Your task to perform on an android device: Open calendar and show me the first week of next month Image 0: 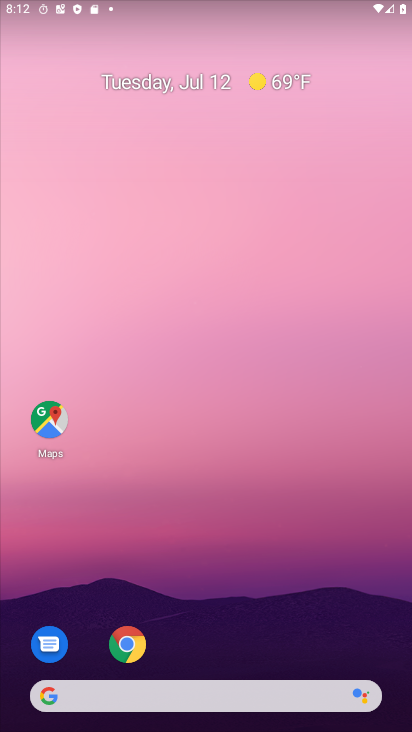
Step 0: press home button
Your task to perform on an android device: Open calendar and show me the first week of next month Image 1: 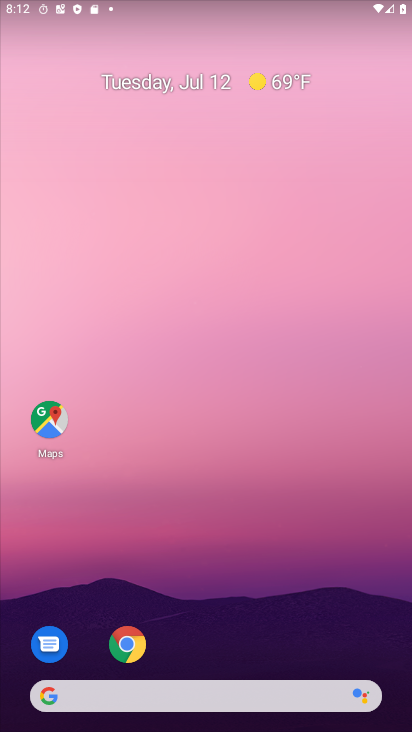
Step 1: drag from (209, 654) to (239, 50)
Your task to perform on an android device: Open calendar and show me the first week of next month Image 2: 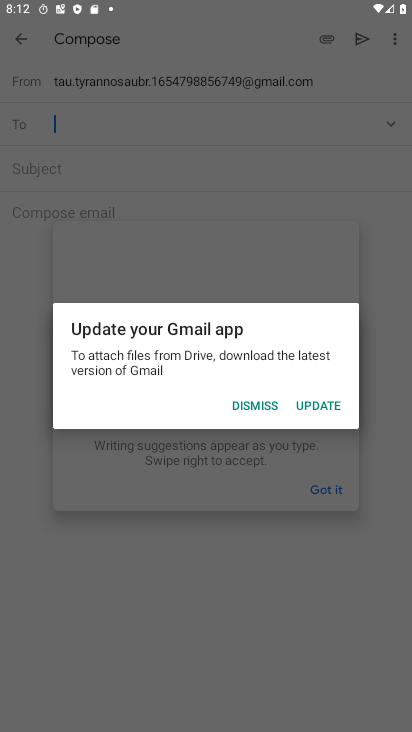
Step 2: press home button
Your task to perform on an android device: Open calendar and show me the first week of next month Image 3: 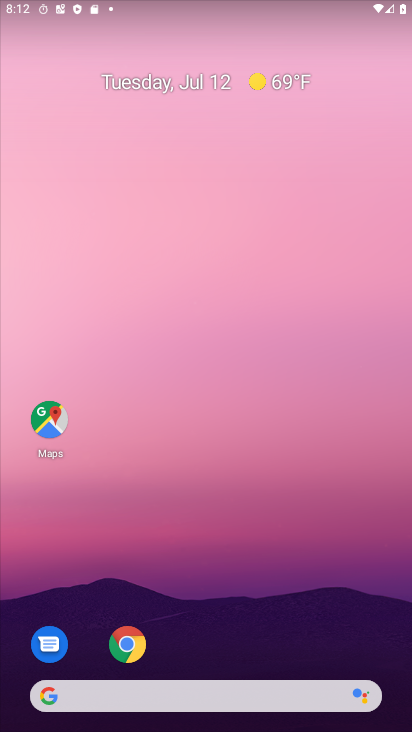
Step 3: drag from (211, 656) to (209, 133)
Your task to perform on an android device: Open calendar and show me the first week of next month Image 4: 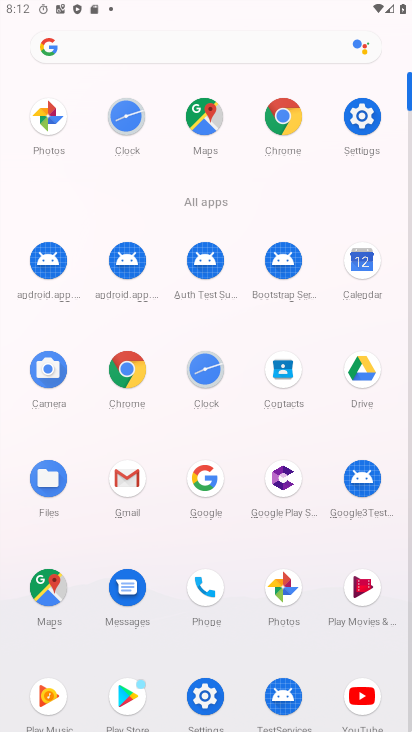
Step 4: click (364, 256)
Your task to perform on an android device: Open calendar and show me the first week of next month Image 5: 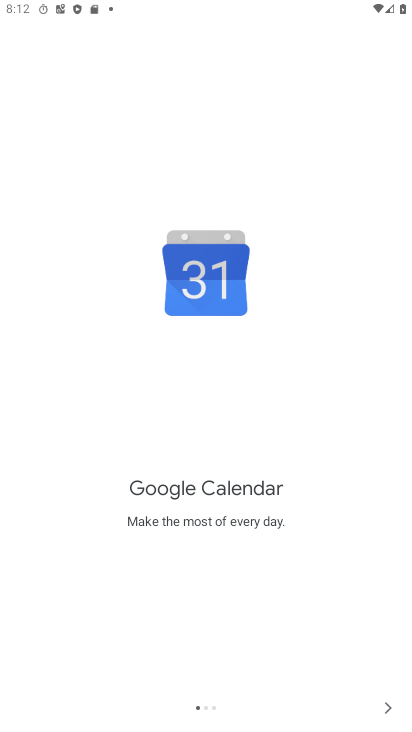
Step 5: click (382, 706)
Your task to perform on an android device: Open calendar and show me the first week of next month Image 6: 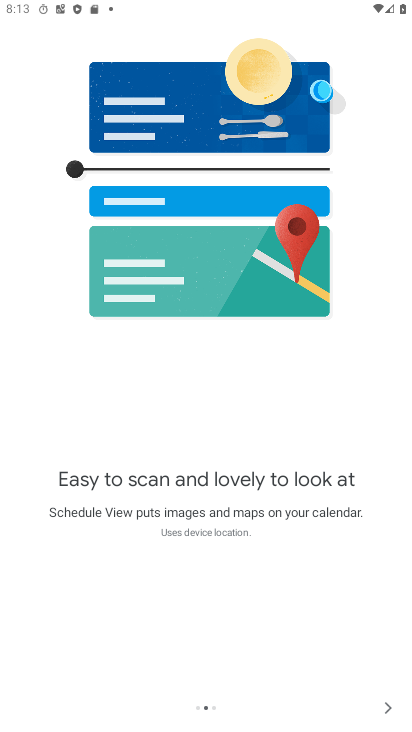
Step 6: click (383, 704)
Your task to perform on an android device: Open calendar and show me the first week of next month Image 7: 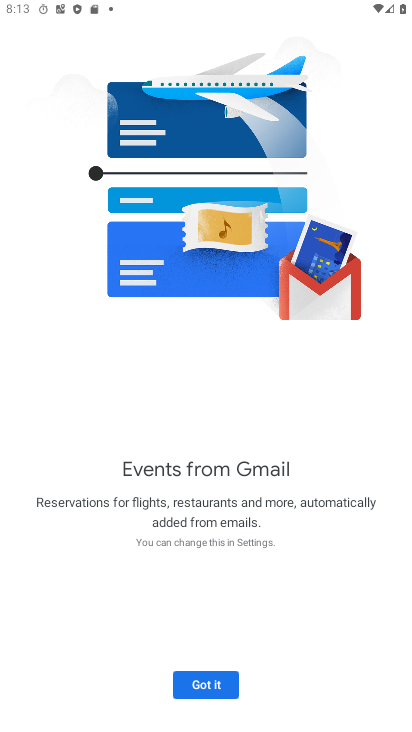
Step 7: click (383, 704)
Your task to perform on an android device: Open calendar and show me the first week of next month Image 8: 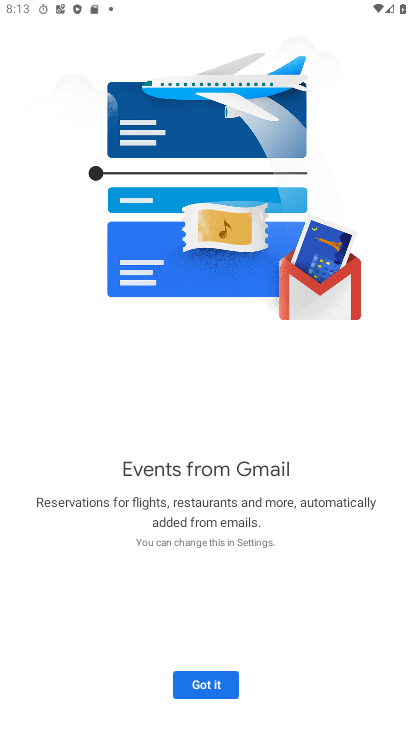
Step 8: click (215, 680)
Your task to perform on an android device: Open calendar and show me the first week of next month Image 9: 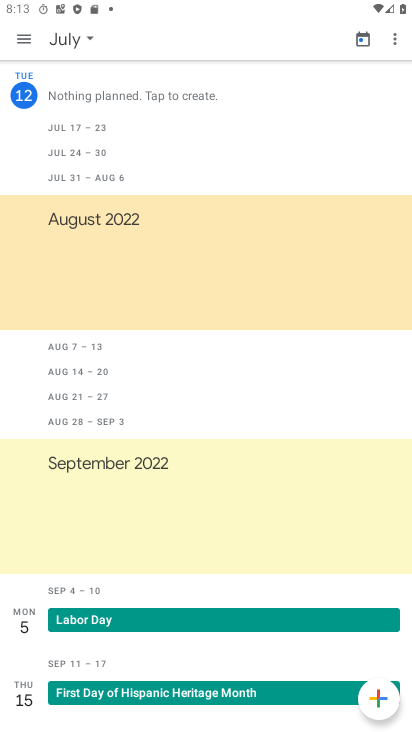
Step 9: click (85, 33)
Your task to perform on an android device: Open calendar and show me the first week of next month Image 10: 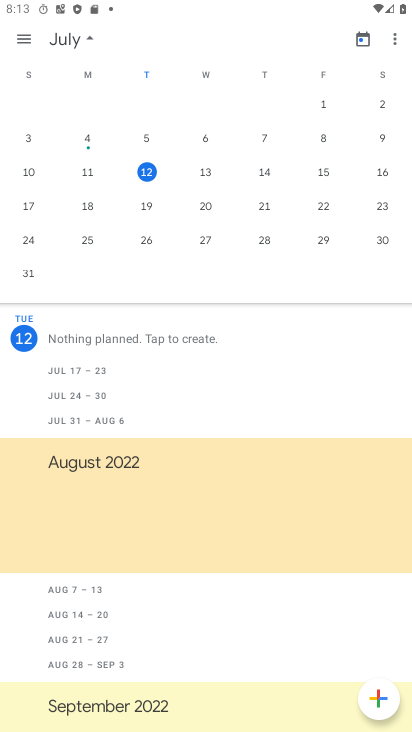
Step 10: drag from (339, 170) to (67, 168)
Your task to perform on an android device: Open calendar and show me the first week of next month Image 11: 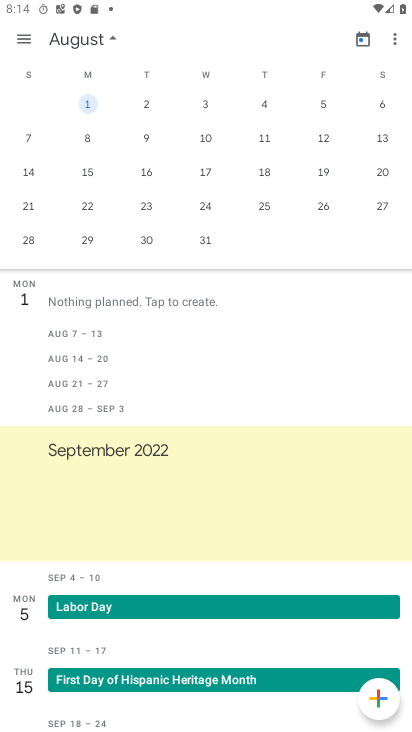
Step 11: click (86, 100)
Your task to perform on an android device: Open calendar and show me the first week of next month Image 12: 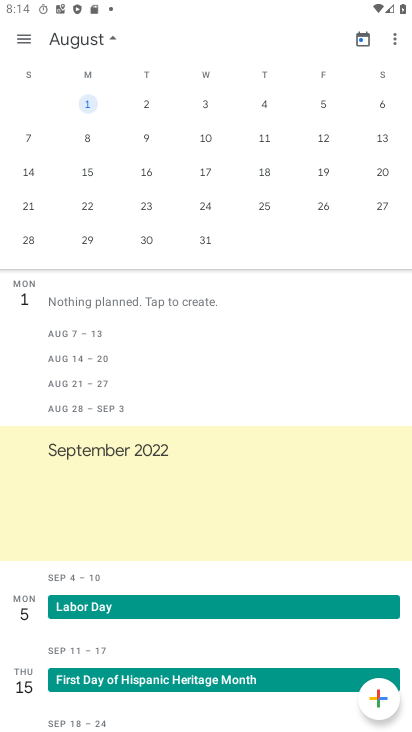
Step 12: click (109, 35)
Your task to perform on an android device: Open calendar and show me the first week of next month Image 13: 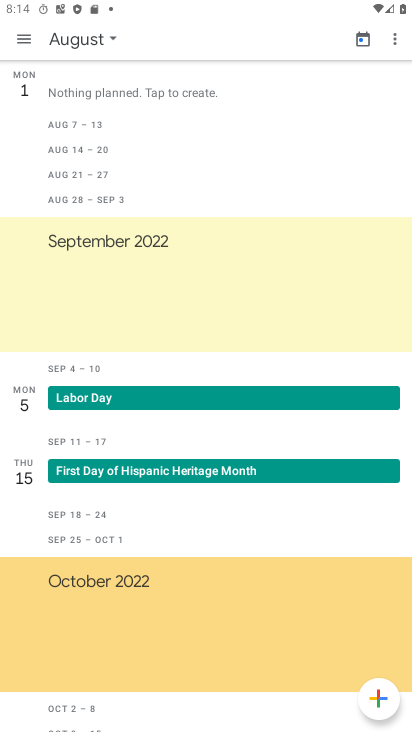
Step 13: click (17, 42)
Your task to perform on an android device: Open calendar and show me the first week of next month Image 14: 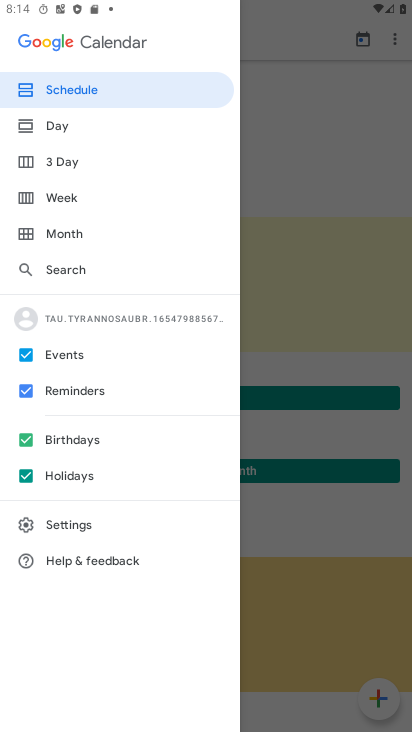
Step 14: click (52, 192)
Your task to perform on an android device: Open calendar and show me the first week of next month Image 15: 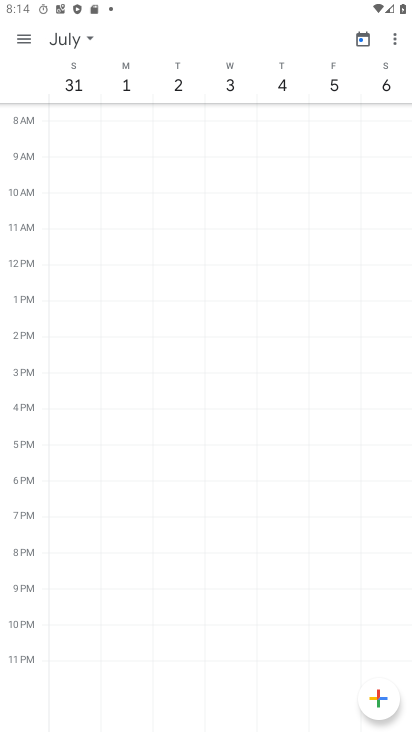
Step 15: task complete